Your task to perform on an android device: Open the stopwatch Image 0: 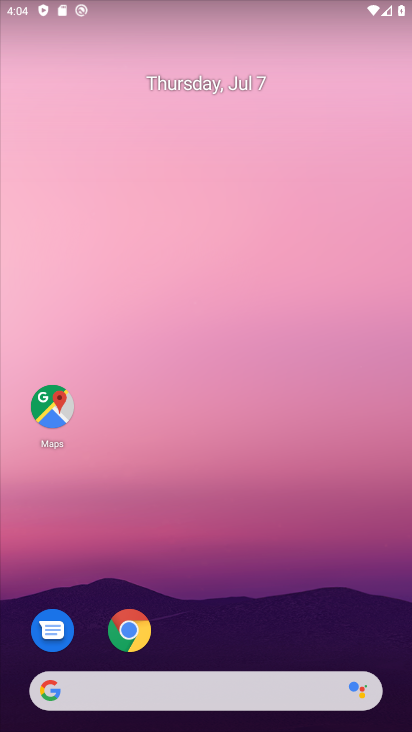
Step 0: drag from (179, 643) to (291, 39)
Your task to perform on an android device: Open the stopwatch Image 1: 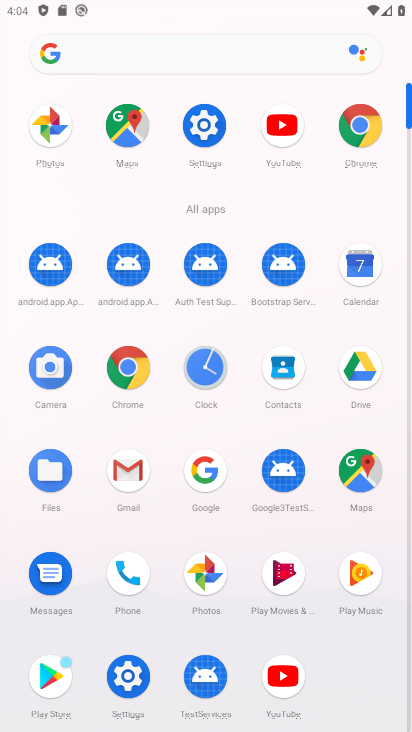
Step 1: click (190, 358)
Your task to perform on an android device: Open the stopwatch Image 2: 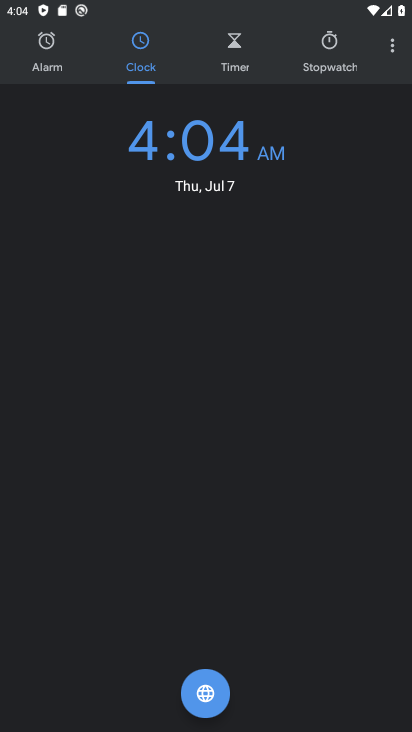
Step 2: click (333, 57)
Your task to perform on an android device: Open the stopwatch Image 3: 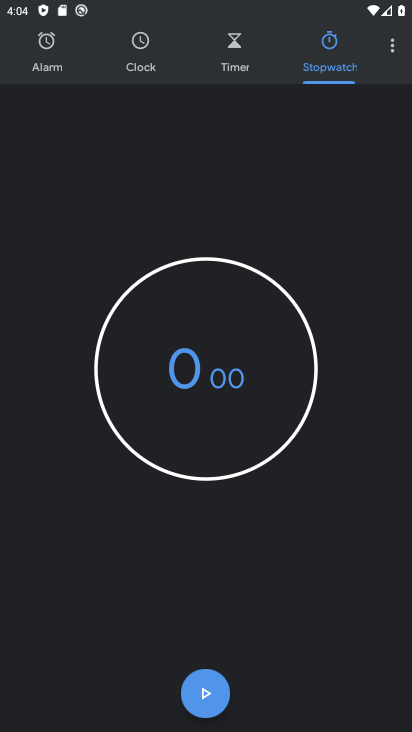
Step 3: click (212, 691)
Your task to perform on an android device: Open the stopwatch Image 4: 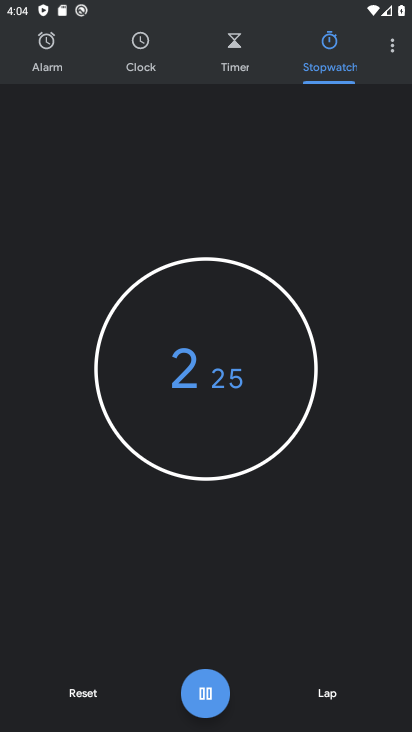
Step 4: task complete